Your task to perform on an android device: Open internet settings Image 0: 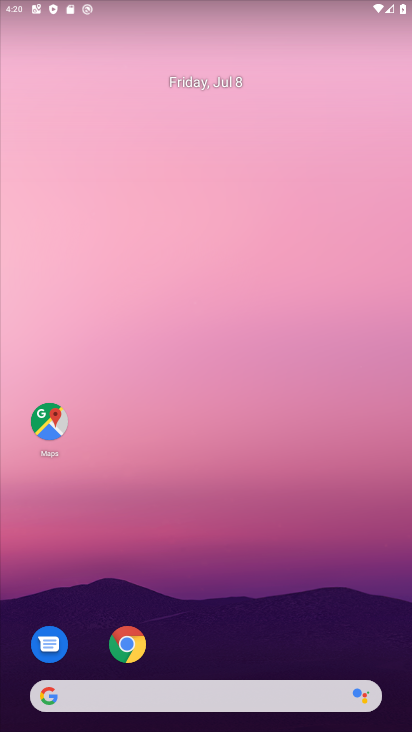
Step 0: drag from (212, 664) to (249, 42)
Your task to perform on an android device: Open internet settings Image 1: 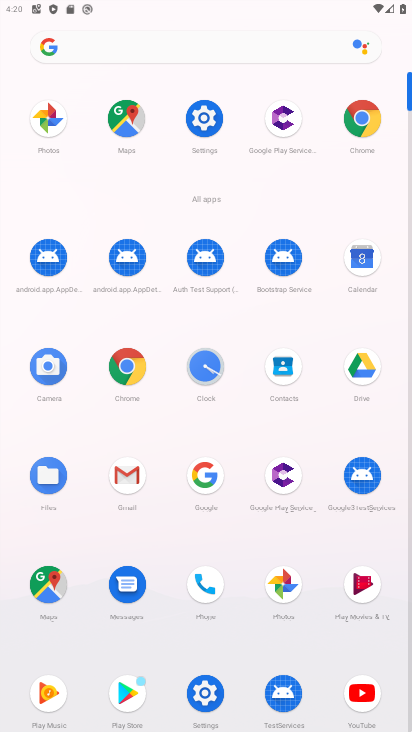
Step 1: click (199, 108)
Your task to perform on an android device: Open internet settings Image 2: 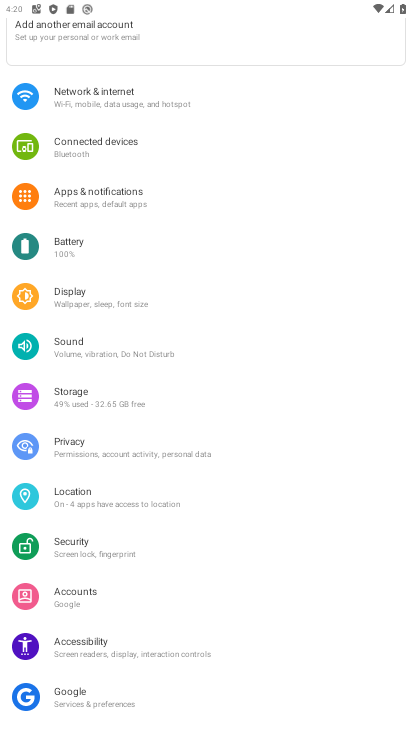
Step 2: click (126, 90)
Your task to perform on an android device: Open internet settings Image 3: 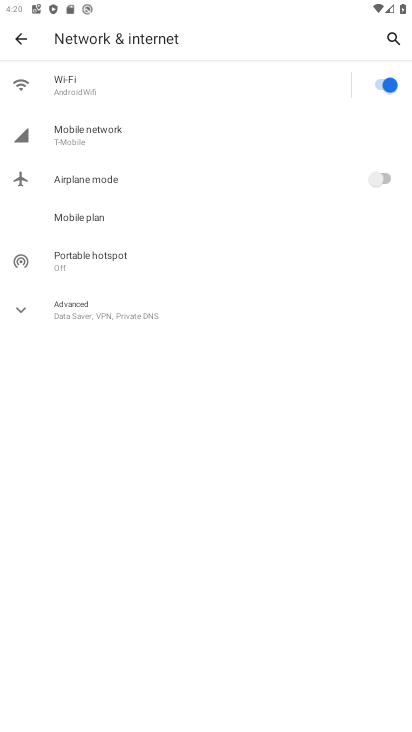
Step 3: click (26, 304)
Your task to perform on an android device: Open internet settings Image 4: 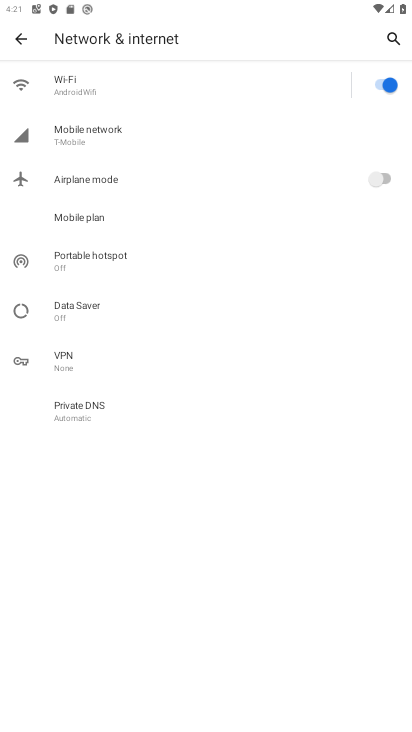
Step 4: task complete